Your task to perform on an android device: open a new tab in the chrome app Image 0: 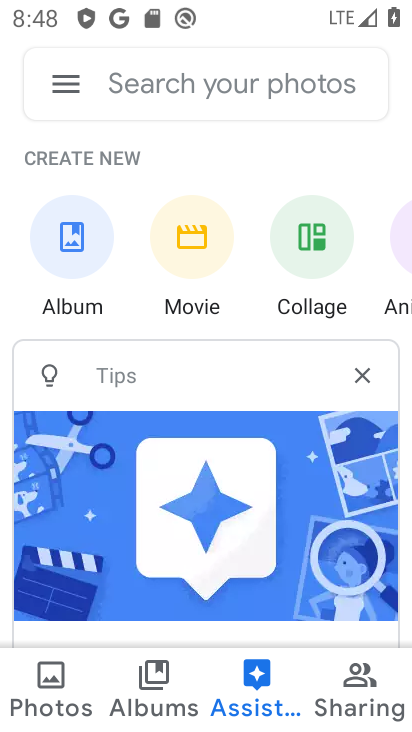
Step 0: press back button
Your task to perform on an android device: open a new tab in the chrome app Image 1: 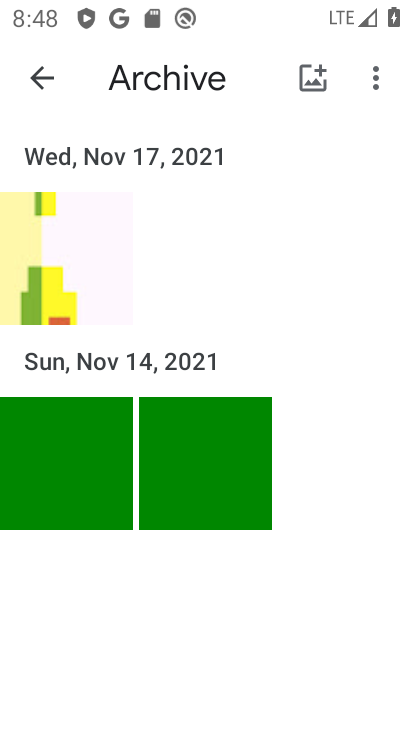
Step 1: press back button
Your task to perform on an android device: open a new tab in the chrome app Image 2: 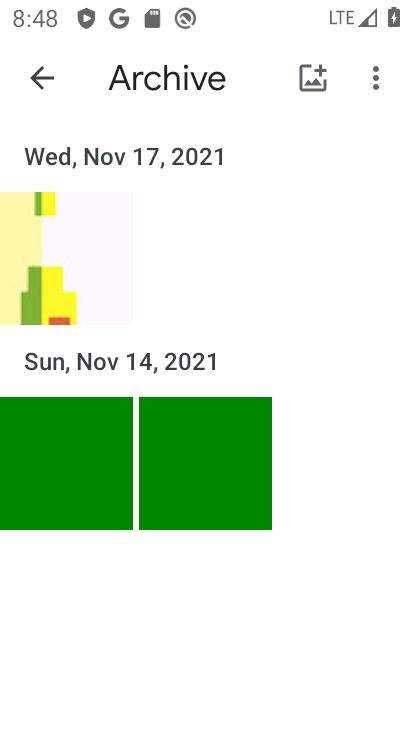
Step 2: press back button
Your task to perform on an android device: open a new tab in the chrome app Image 3: 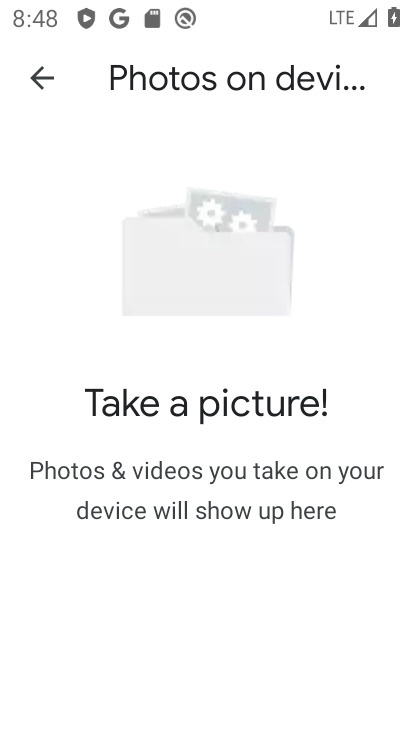
Step 3: press back button
Your task to perform on an android device: open a new tab in the chrome app Image 4: 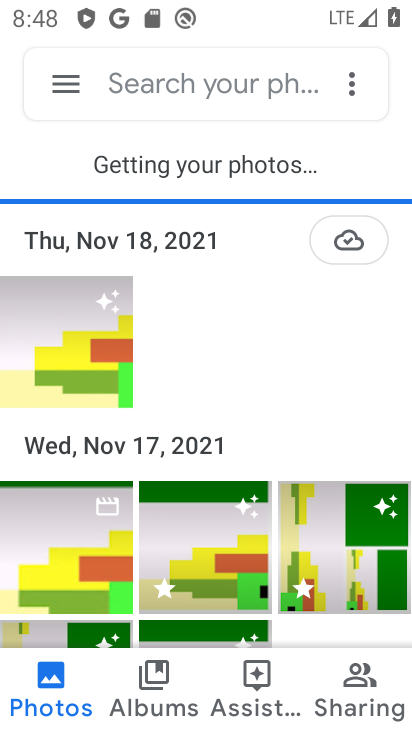
Step 4: press home button
Your task to perform on an android device: open a new tab in the chrome app Image 5: 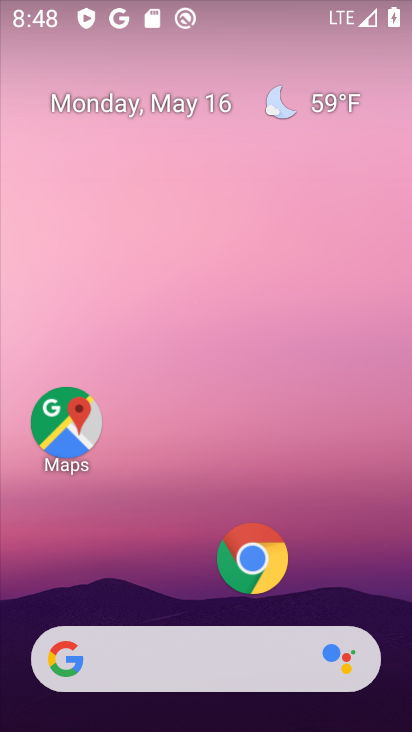
Step 5: click (257, 569)
Your task to perform on an android device: open a new tab in the chrome app Image 6: 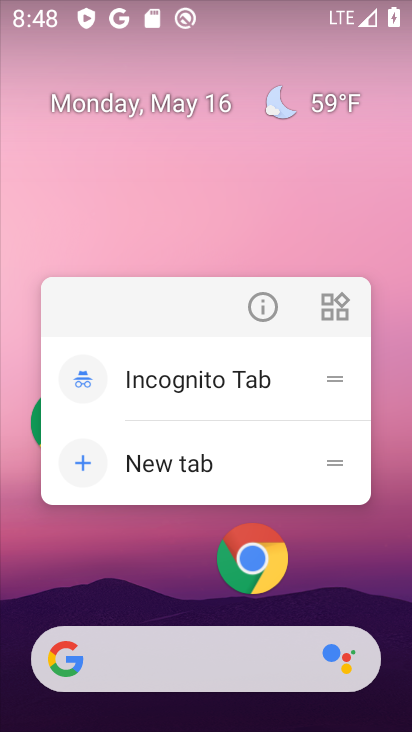
Step 6: click (250, 557)
Your task to perform on an android device: open a new tab in the chrome app Image 7: 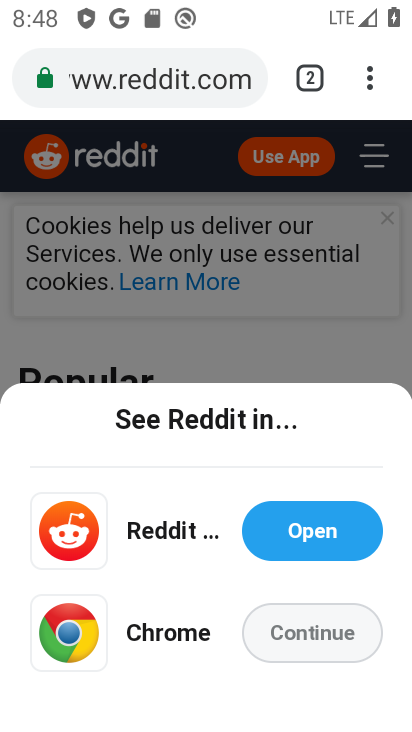
Step 7: click (314, 69)
Your task to perform on an android device: open a new tab in the chrome app Image 8: 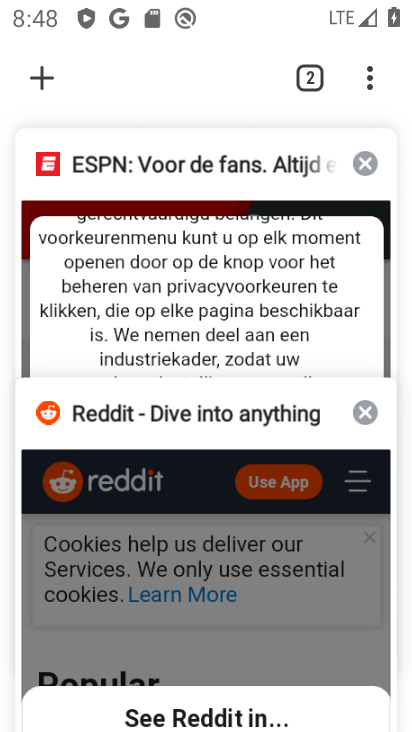
Step 8: click (50, 77)
Your task to perform on an android device: open a new tab in the chrome app Image 9: 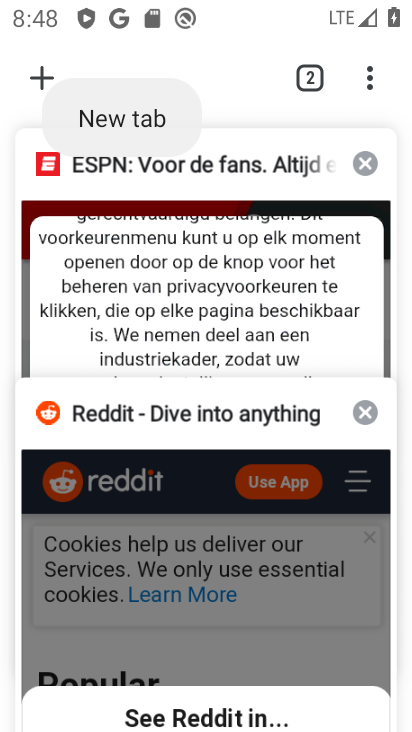
Step 9: click (42, 69)
Your task to perform on an android device: open a new tab in the chrome app Image 10: 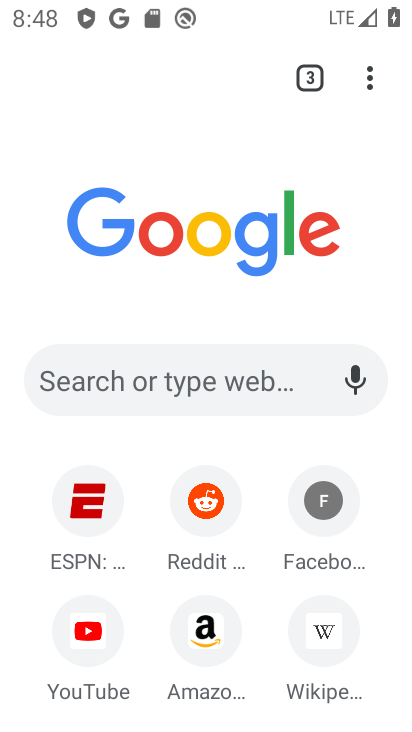
Step 10: task complete